Your task to perform on an android device: Play the last video I watched on Youtube Image 0: 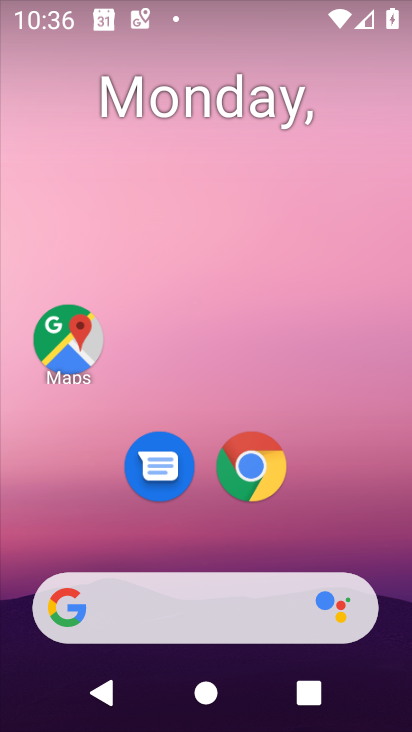
Step 0: drag from (362, 566) to (212, 199)
Your task to perform on an android device: Play the last video I watched on Youtube Image 1: 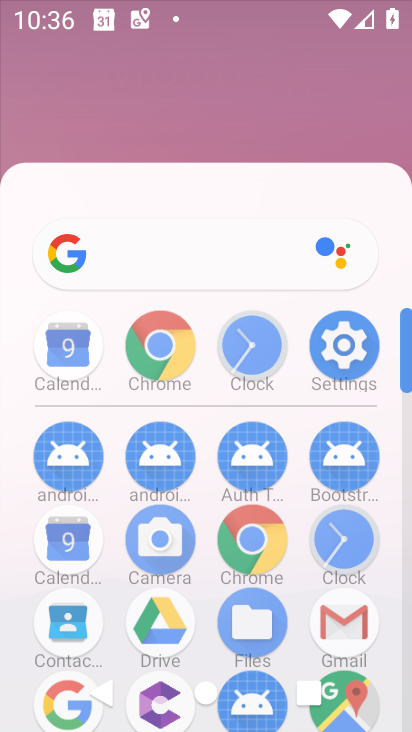
Step 1: drag from (309, 459) to (188, 74)
Your task to perform on an android device: Play the last video I watched on Youtube Image 2: 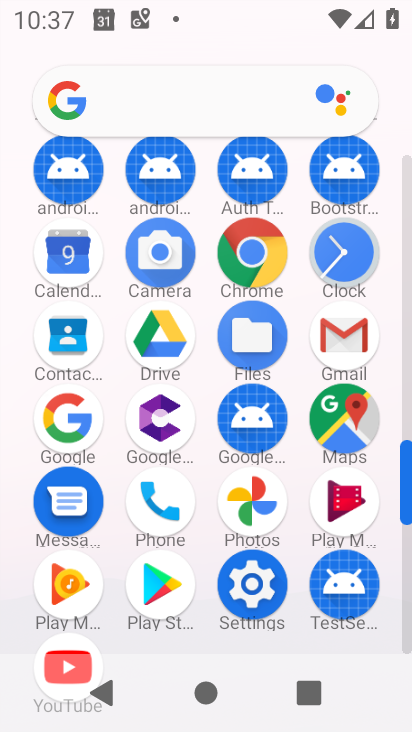
Step 2: click (205, 180)
Your task to perform on an android device: Play the last video I watched on Youtube Image 3: 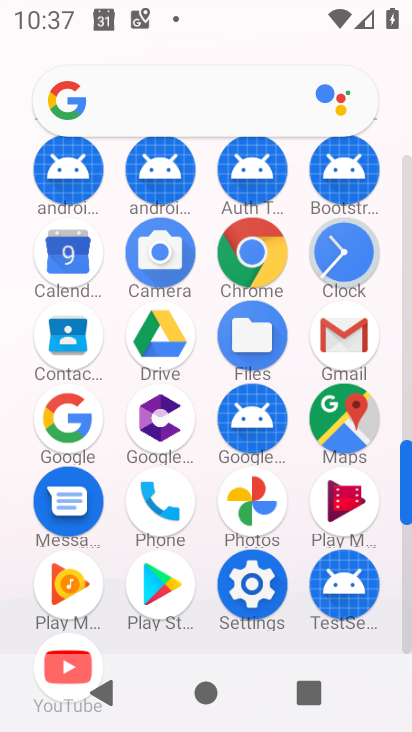
Step 3: drag from (196, 449) to (196, 121)
Your task to perform on an android device: Play the last video I watched on Youtube Image 4: 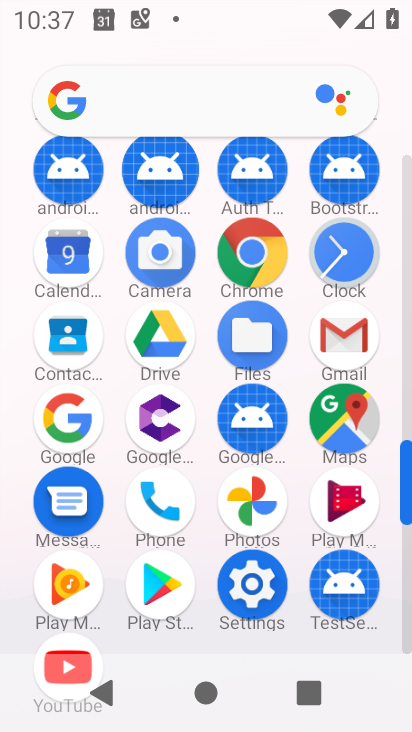
Step 4: drag from (192, 217) to (192, 148)
Your task to perform on an android device: Play the last video I watched on Youtube Image 5: 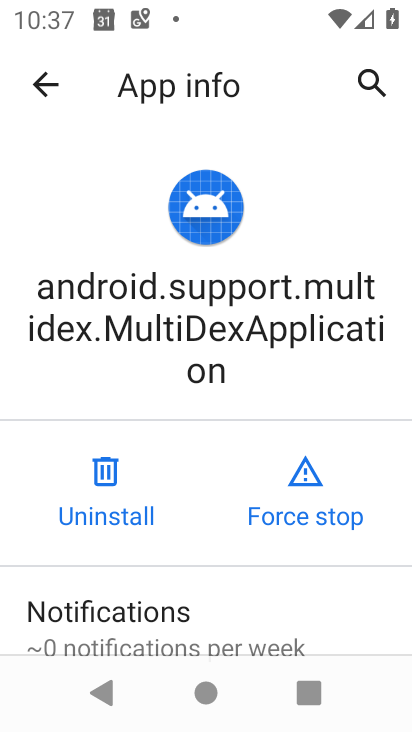
Step 5: click (40, 75)
Your task to perform on an android device: Play the last video I watched on Youtube Image 6: 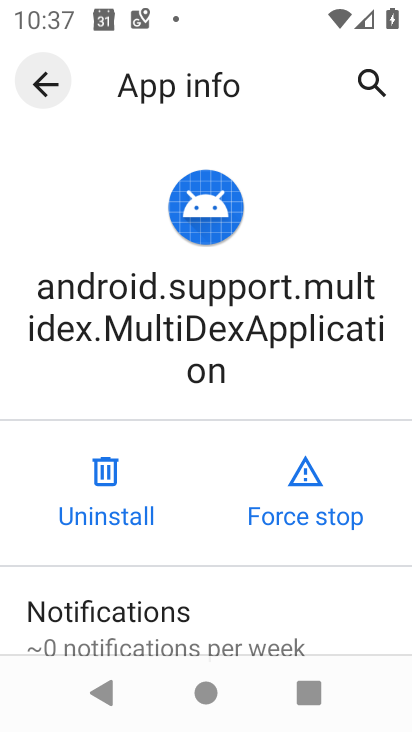
Step 6: click (39, 76)
Your task to perform on an android device: Play the last video I watched on Youtube Image 7: 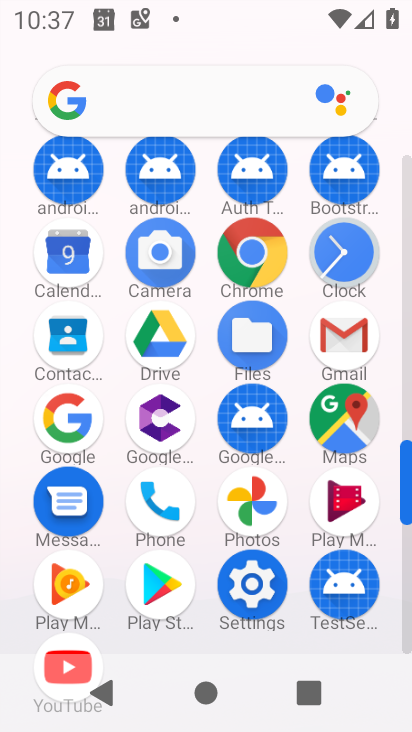
Step 7: click (158, 160)
Your task to perform on an android device: Play the last video I watched on Youtube Image 8: 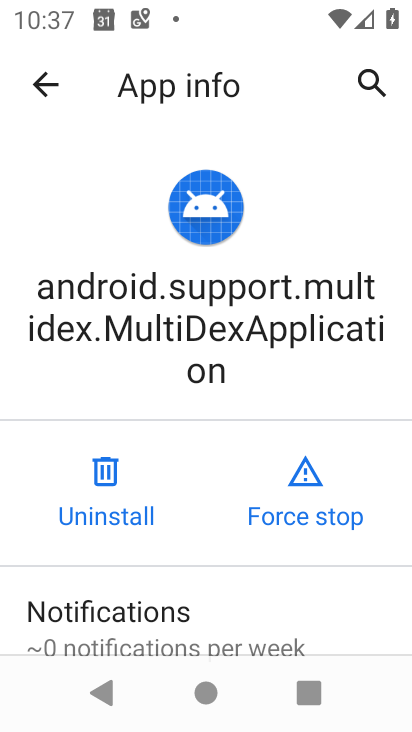
Step 8: click (33, 78)
Your task to perform on an android device: Play the last video I watched on Youtube Image 9: 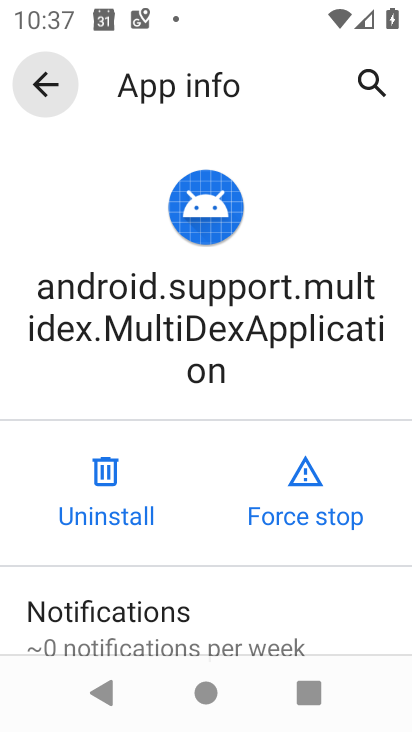
Step 9: click (35, 84)
Your task to perform on an android device: Play the last video I watched on Youtube Image 10: 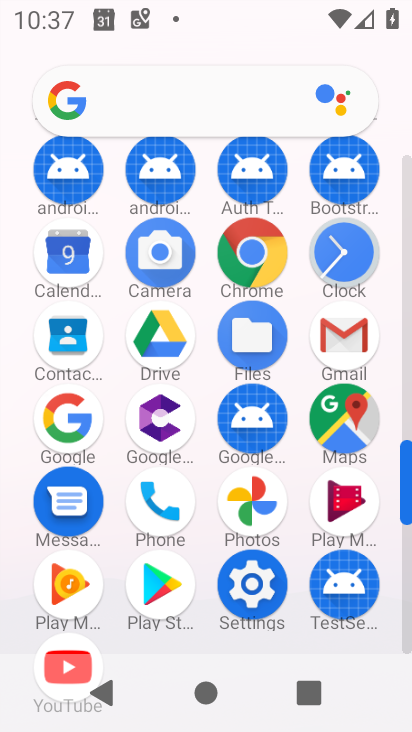
Step 10: drag from (199, 490) to (175, 16)
Your task to perform on an android device: Play the last video I watched on Youtube Image 11: 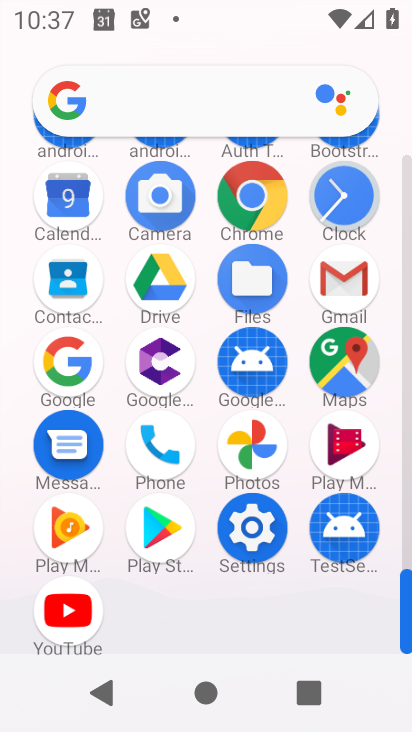
Step 11: drag from (200, 436) to (192, 75)
Your task to perform on an android device: Play the last video I watched on Youtube Image 12: 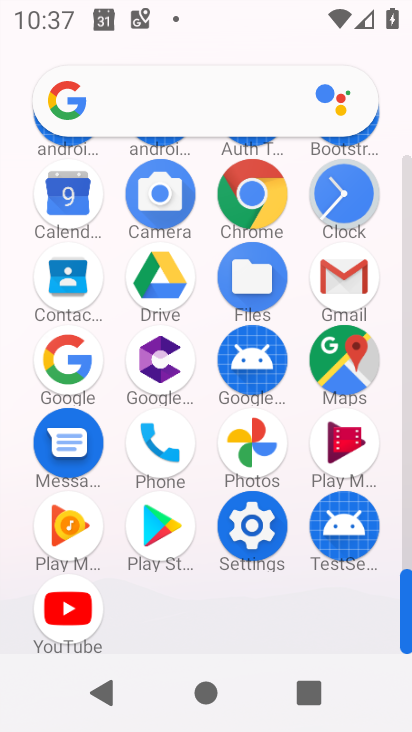
Step 12: drag from (233, 417) to (221, 83)
Your task to perform on an android device: Play the last video I watched on Youtube Image 13: 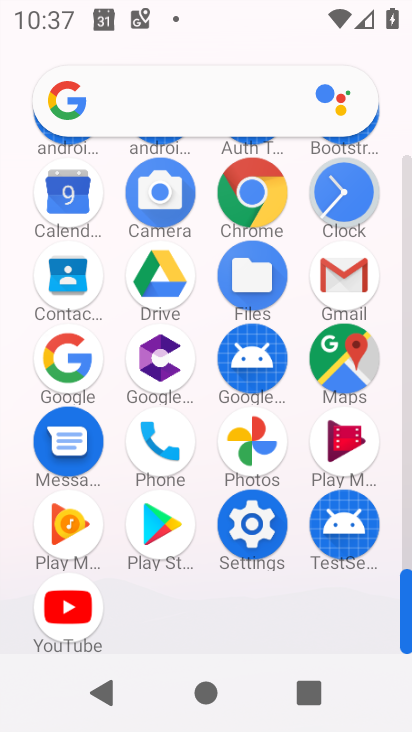
Step 13: drag from (216, 417) to (210, 124)
Your task to perform on an android device: Play the last video I watched on Youtube Image 14: 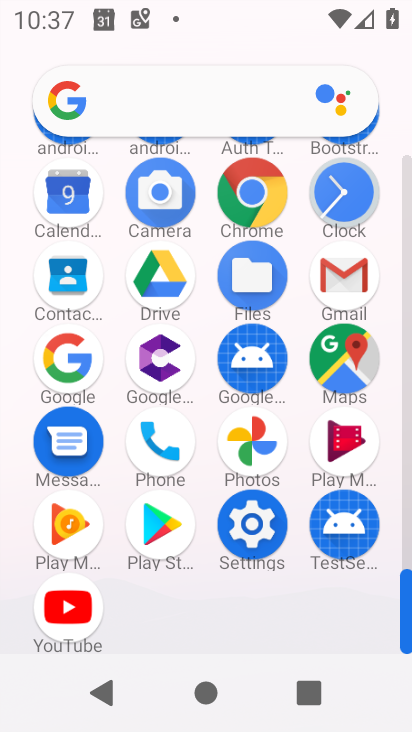
Step 14: click (61, 627)
Your task to perform on an android device: Play the last video I watched on Youtube Image 15: 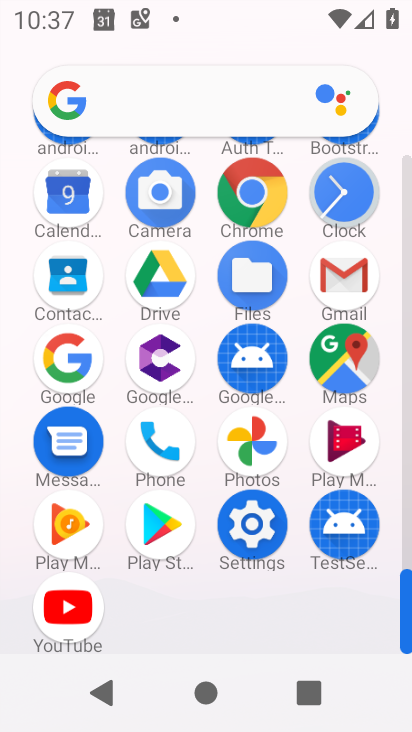
Step 15: click (62, 615)
Your task to perform on an android device: Play the last video I watched on Youtube Image 16: 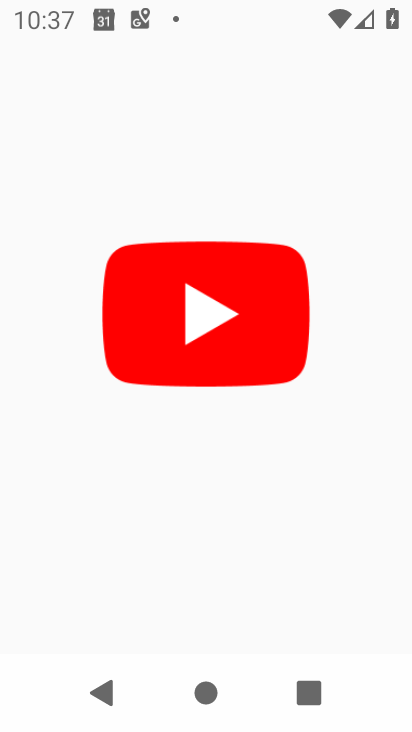
Step 16: click (64, 609)
Your task to perform on an android device: Play the last video I watched on Youtube Image 17: 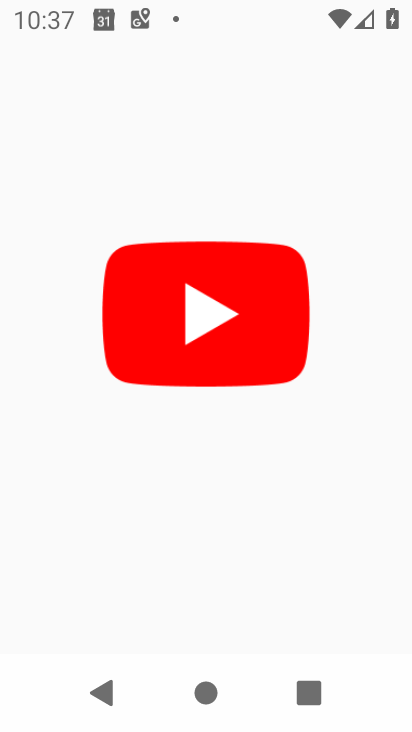
Step 17: click (63, 607)
Your task to perform on an android device: Play the last video I watched on Youtube Image 18: 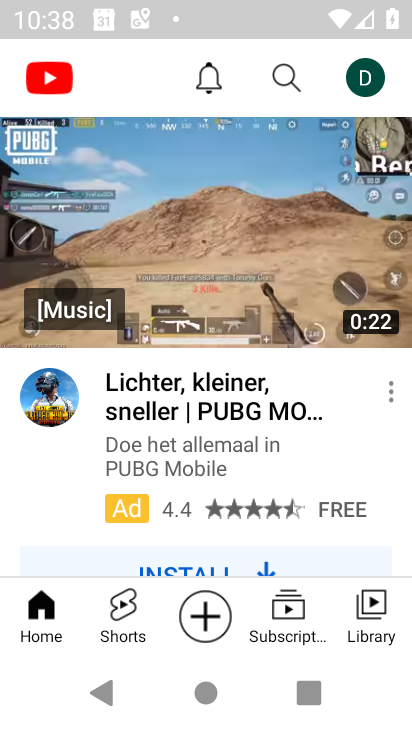
Step 18: click (259, 279)
Your task to perform on an android device: Play the last video I watched on Youtube Image 19: 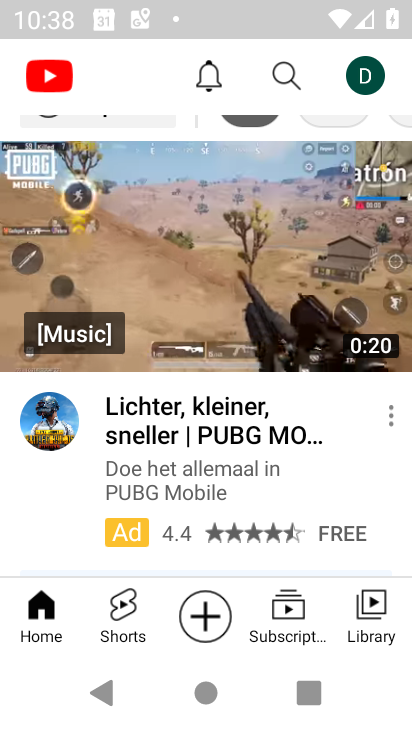
Step 19: click (273, 309)
Your task to perform on an android device: Play the last video I watched on Youtube Image 20: 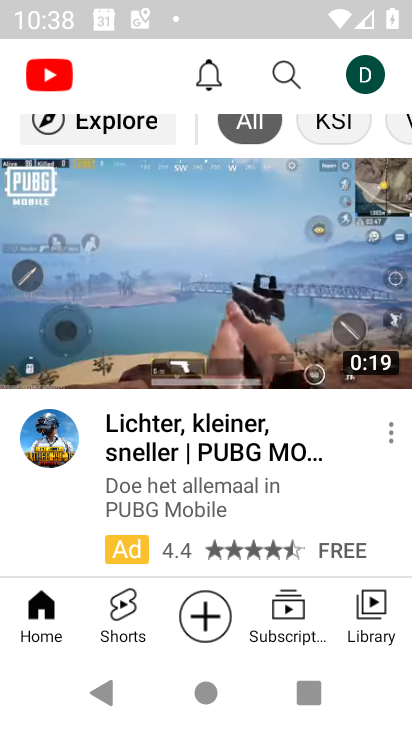
Step 20: click (312, 303)
Your task to perform on an android device: Play the last video I watched on Youtube Image 21: 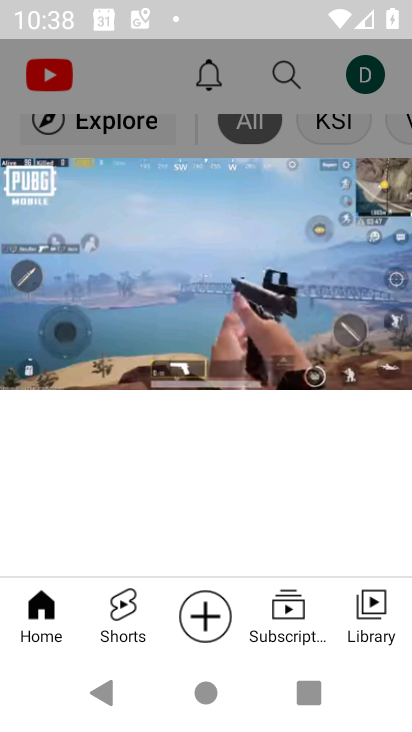
Step 21: click (326, 347)
Your task to perform on an android device: Play the last video I watched on Youtube Image 22: 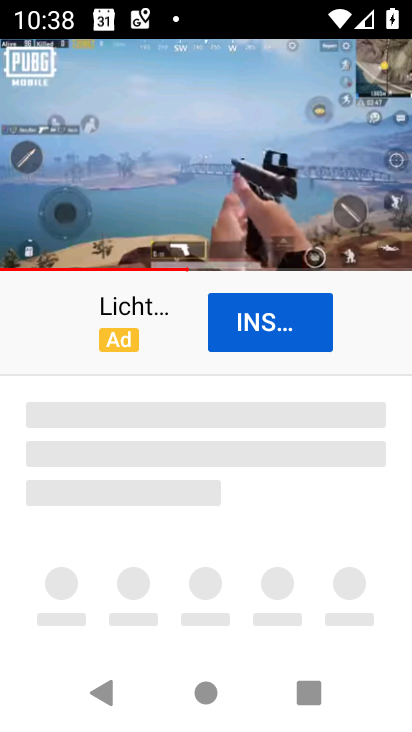
Step 22: click (278, 291)
Your task to perform on an android device: Play the last video I watched on Youtube Image 23: 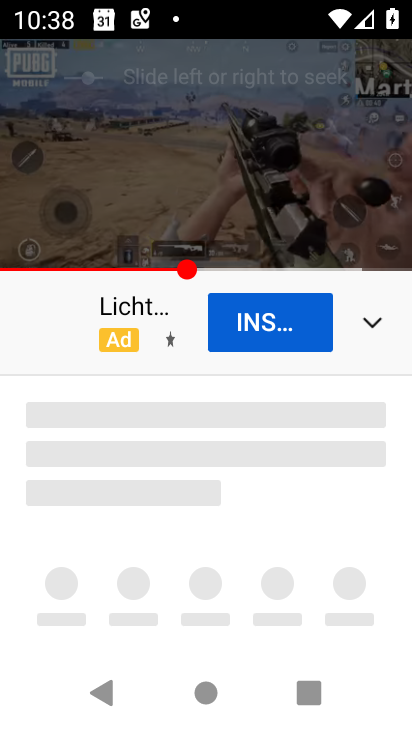
Step 23: click (238, 206)
Your task to perform on an android device: Play the last video I watched on Youtube Image 24: 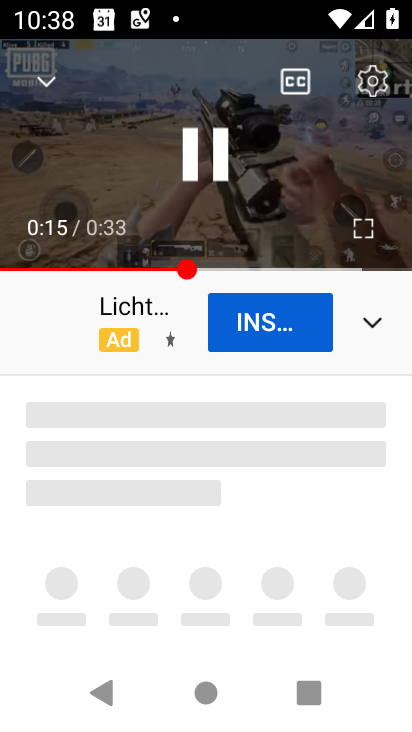
Step 24: drag from (238, 206) to (278, 236)
Your task to perform on an android device: Play the last video I watched on Youtube Image 25: 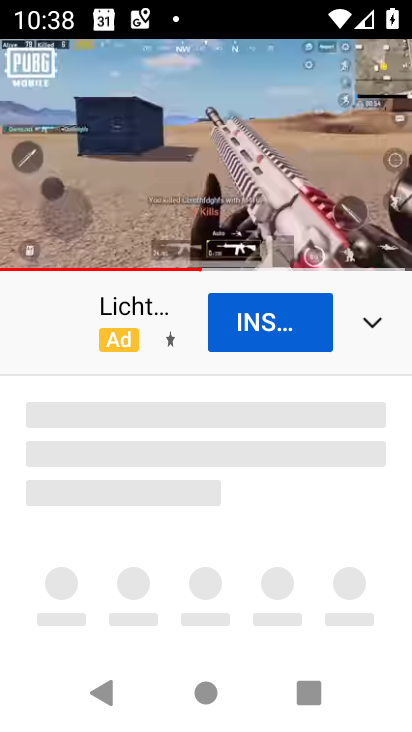
Step 25: click (280, 244)
Your task to perform on an android device: Play the last video I watched on Youtube Image 26: 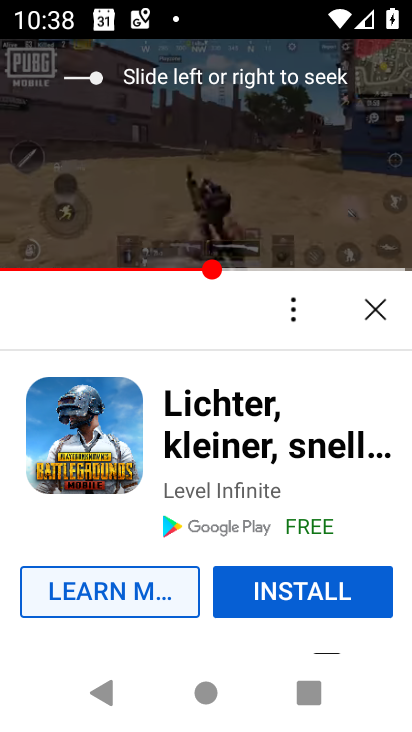
Step 26: click (287, 249)
Your task to perform on an android device: Play the last video I watched on Youtube Image 27: 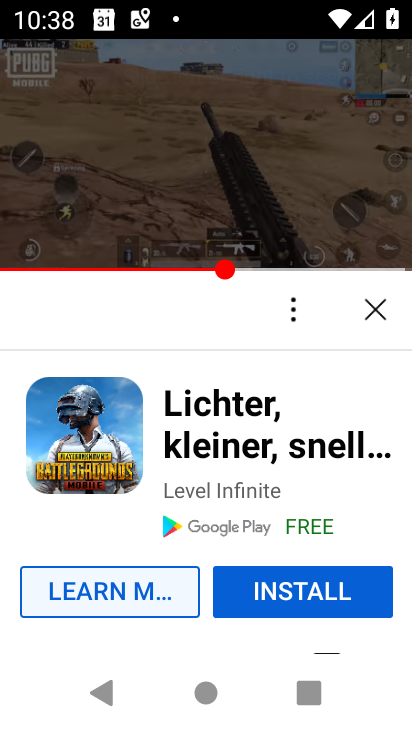
Step 27: click (303, 267)
Your task to perform on an android device: Play the last video I watched on Youtube Image 28: 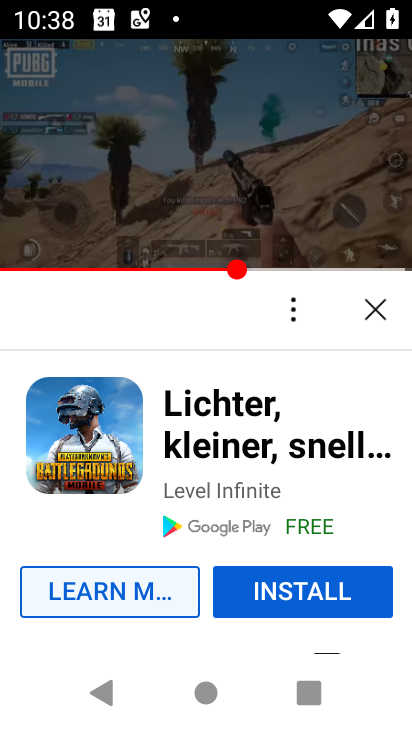
Step 28: click (303, 267)
Your task to perform on an android device: Play the last video I watched on Youtube Image 29: 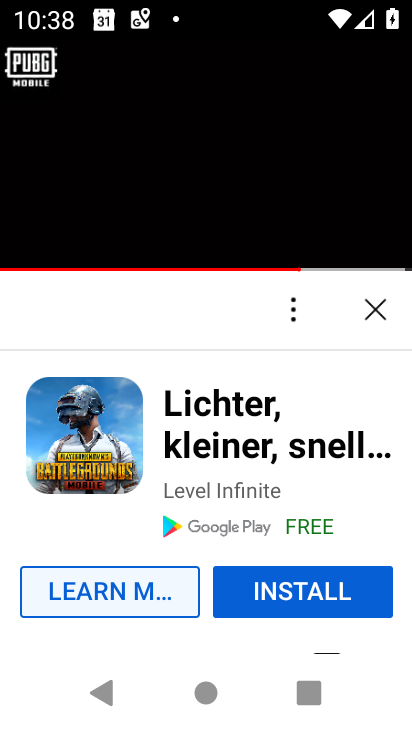
Step 29: task complete